Your task to perform on an android device: Open the phone app and click the voicemail tab. Image 0: 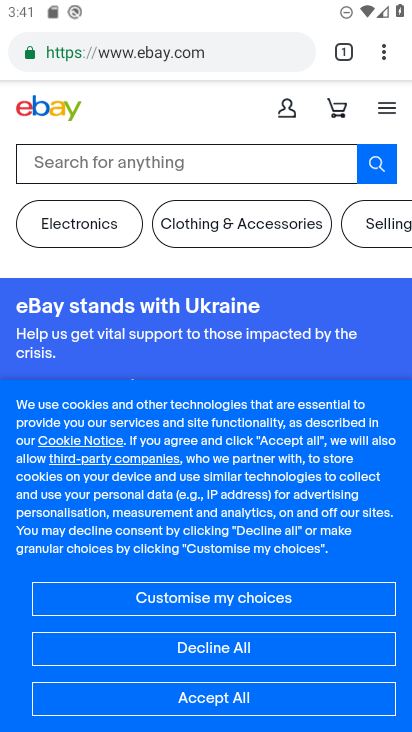
Step 0: press home button
Your task to perform on an android device: Open the phone app and click the voicemail tab. Image 1: 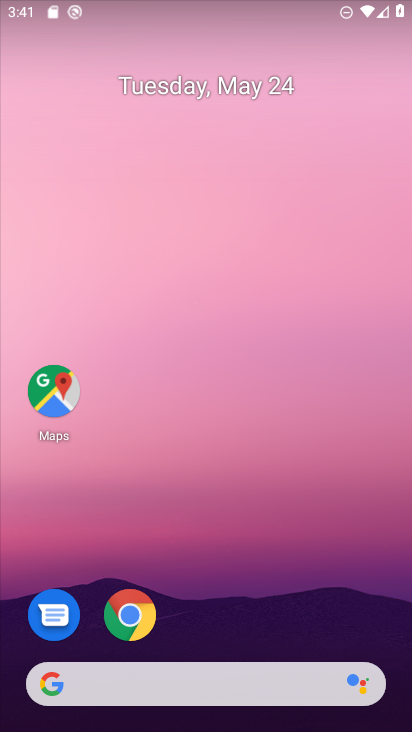
Step 1: drag from (308, 591) to (344, 204)
Your task to perform on an android device: Open the phone app and click the voicemail tab. Image 2: 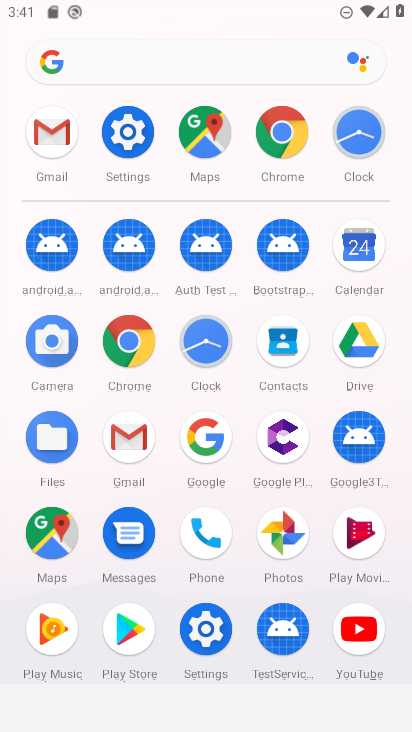
Step 2: click (219, 532)
Your task to perform on an android device: Open the phone app and click the voicemail tab. Image 3: 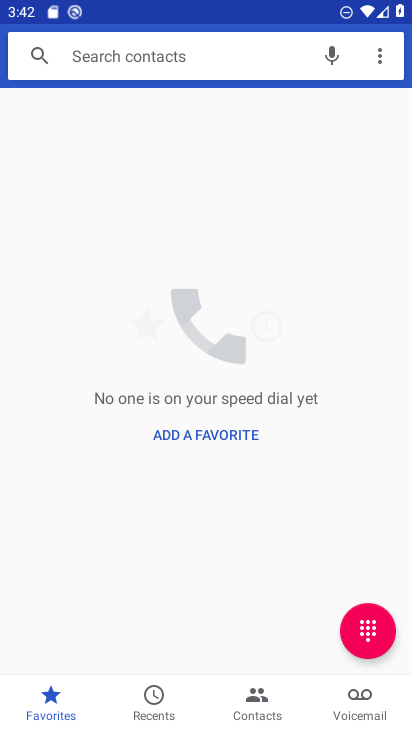
Step 3: click (353, 711)
Your task to perform on an android device: Open the phone app and click the voicemail tab. Image 4: 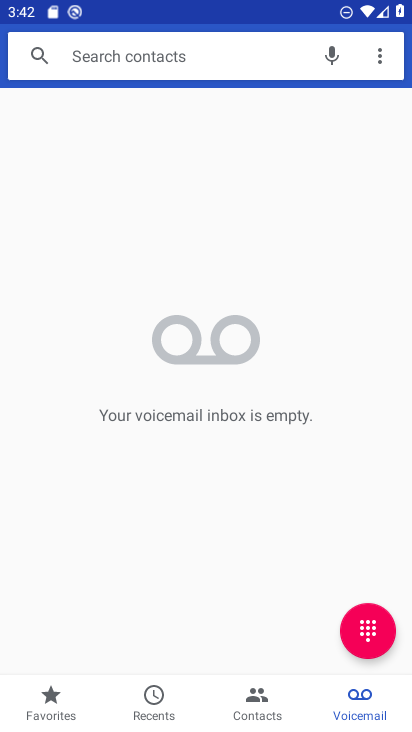
Step 4: task complete